Your task to perform on an android device: read, delete, or share a saved page in the chrome app Image 0: 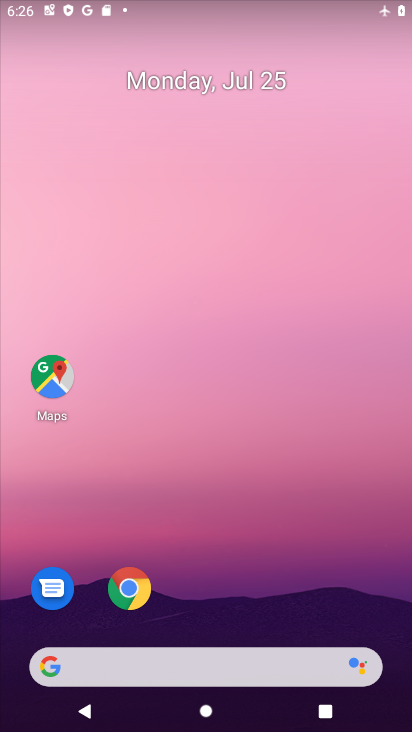
Step 0: click (133, 600)
Your task to perform on an android device: read, delete, or share a saved page in the chrome app Image 1: 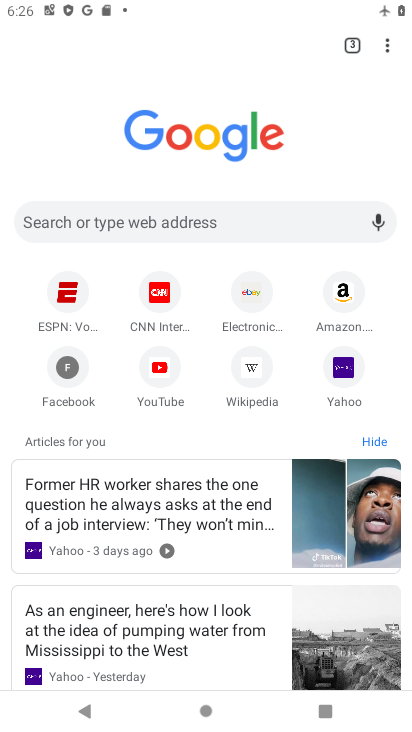
Step 1: click (387, 42)
Your task to perform on an android device: read, delete, or share a saved page in the chrome app Image 2: 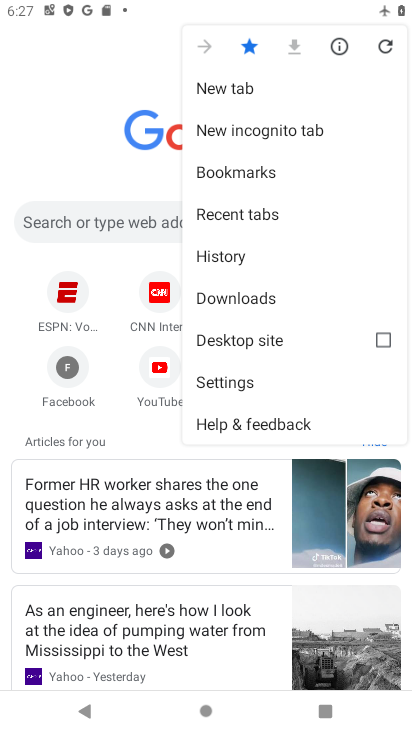
Step 2: click (226, 379)
Your task to perform on an android device: read, delete, or share a saved page in the chrome app Image 3: 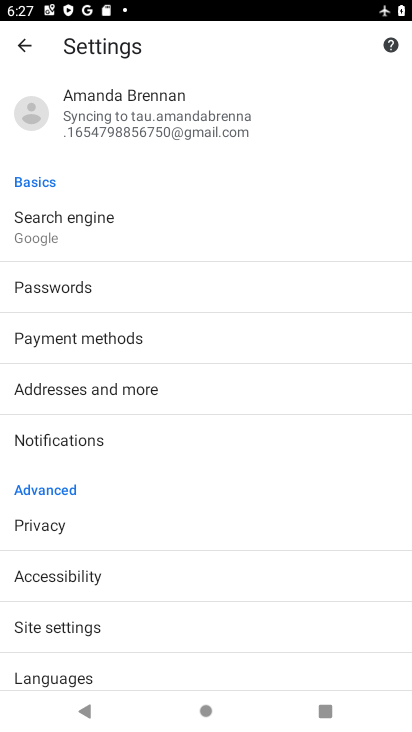
Step 3: task complete